Your task to perform on an android device: Play the last video I watched on Youtube Image 0: 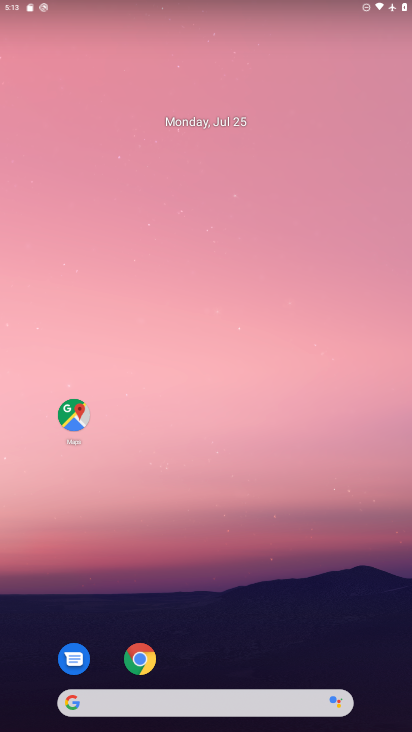
Step 0: drag from (279, 656) to (333, 8)
Your task to perform on an android device: Play the last video I watched on Youtube Image 1: 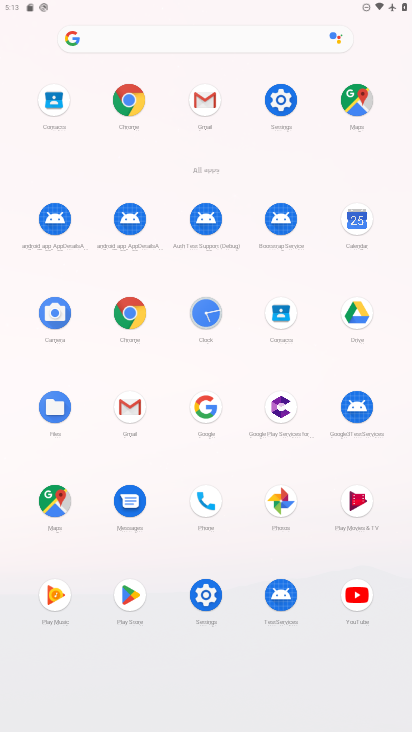
Step 1: click (362, 591)
Your task to perform on an android device: Play the last video I watched on Youtube Image 2: 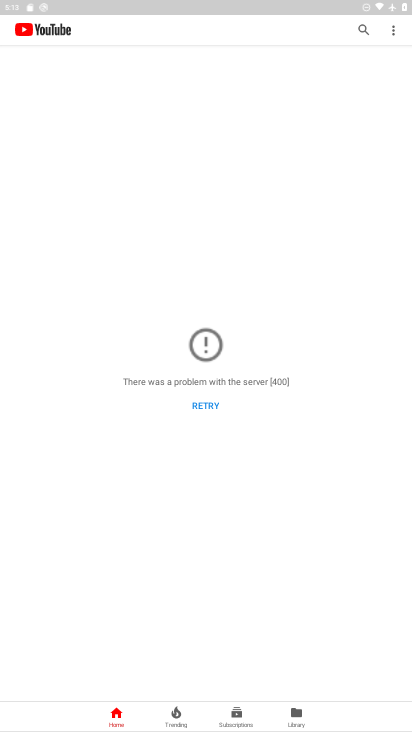
Step 2: click (297, 716)
Your task to perform on an android device: Play the last video I watched on Youtube Image 3: 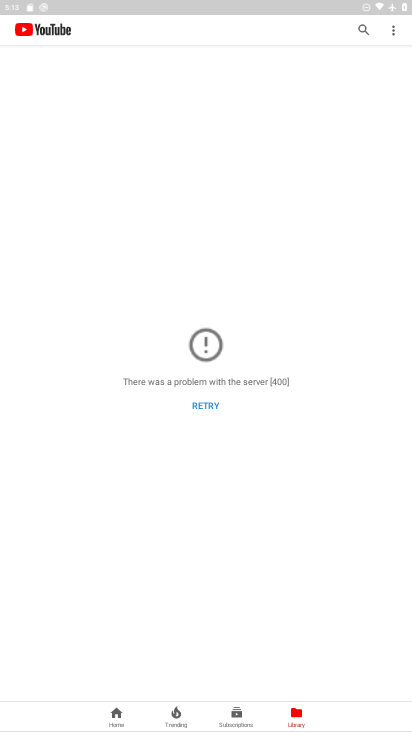
Step 3: task complete